Your task to perform on an android device: Open eBay Image 0: 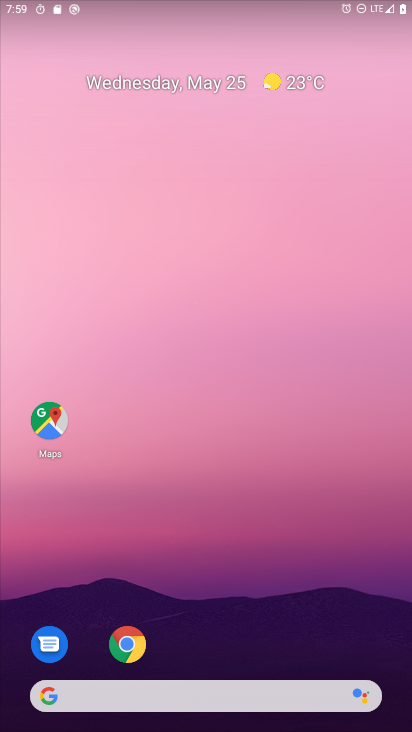
Step 0: drag from (305, 627) to (278, 15)
Your task to perform on an android device: Open eBay Image 1: 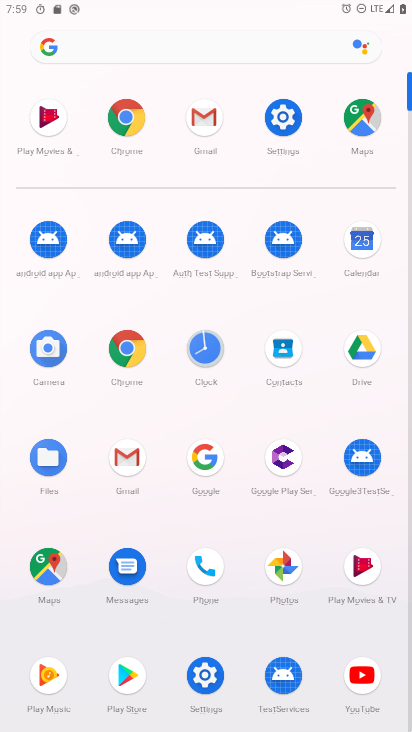
Step 1: click (203, 474)
Your task to perform on an android device: Open eBay Image 2: 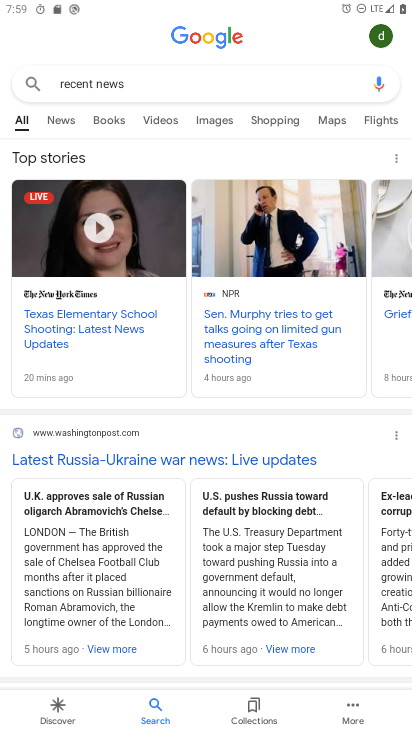
Step 2: press back button
Your task to perform on an android device: Open eBay Image 3: 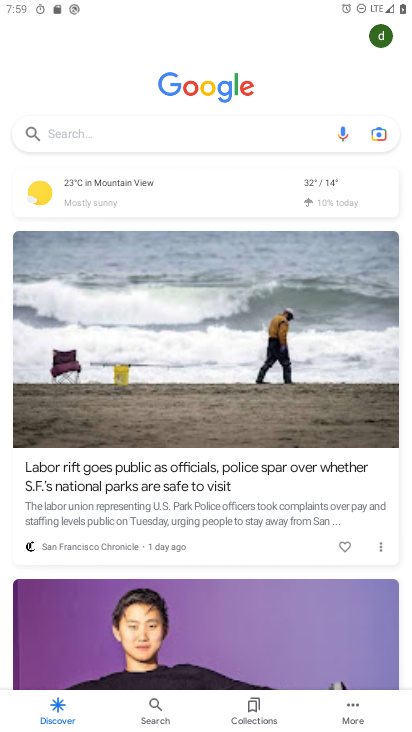
Step 3: click (110, 125)
Your task to perform on an android device: Open eBay Image 4: 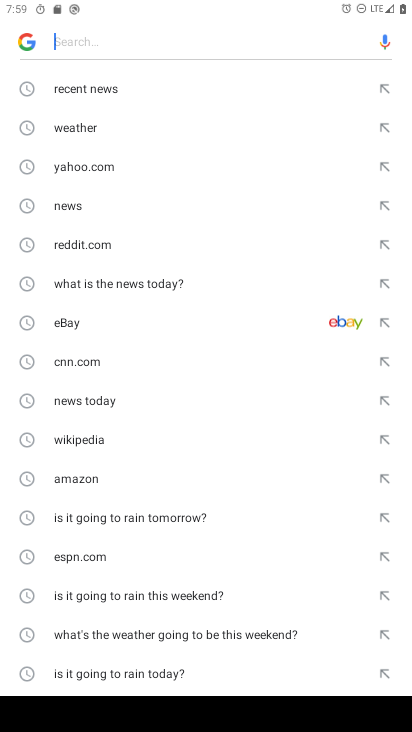
Step 4: click (97, 313)
Your task to perform on an android device: Open eBay Image 5: 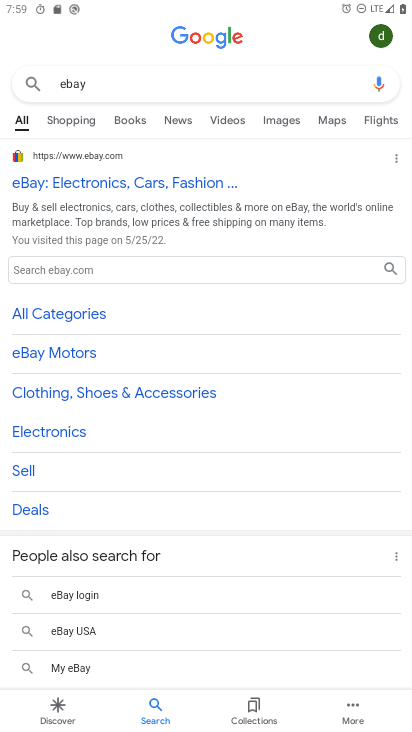
Step 5: task complete